Your task to perform on an android device: Go to display settings Image 0: 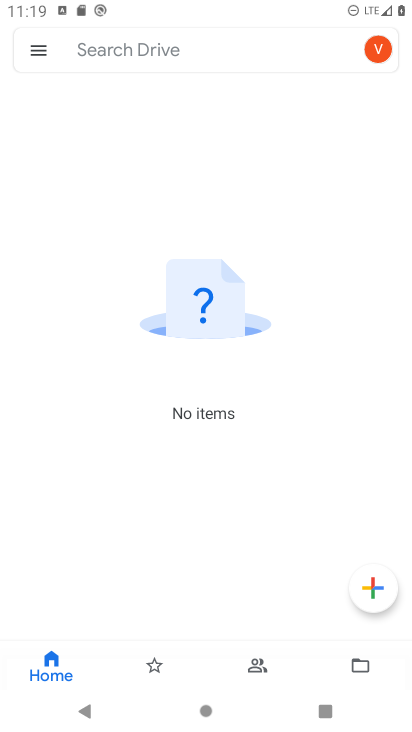
Step 0: press home button
Your task to perform on an android device: Go to display settings Image 1: 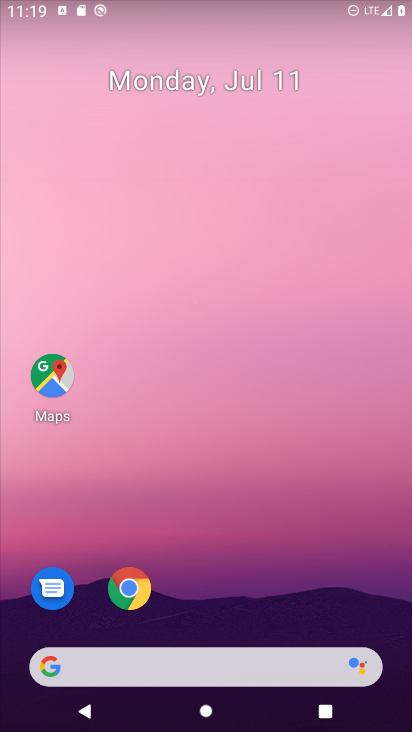
Step 1: drag from (385, 672) to (248, 59)
Your task to perform on an android device: Go to display settings Image 2: 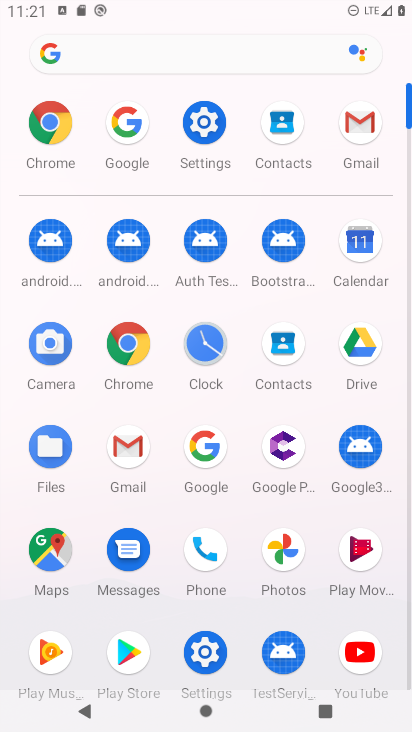
Step 2: click (205, 664)
Your task to perform on an android device: Go to display settings Image 3: 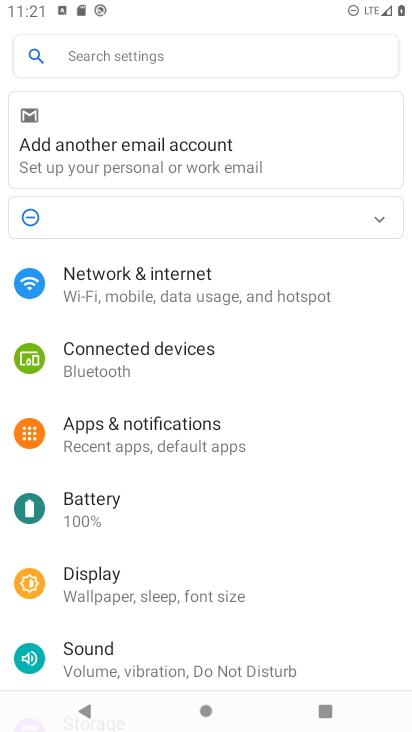
Step 3: click (122, 583)
Your task to perform on an android device: Go to display settings Image 4: 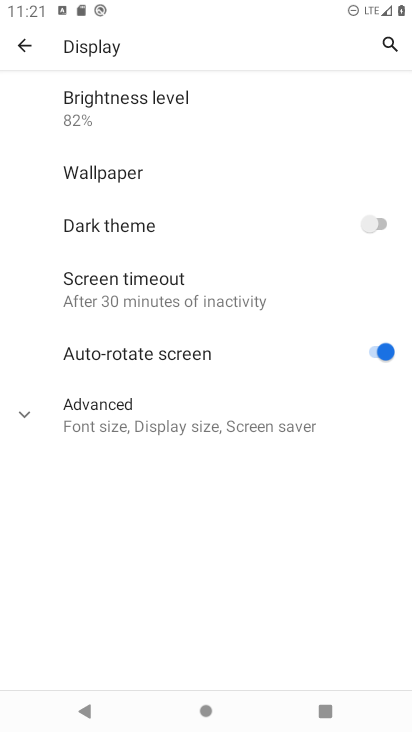
Step 4: task complete